Your task to perform on an android device: turn notification dots off Image 0: 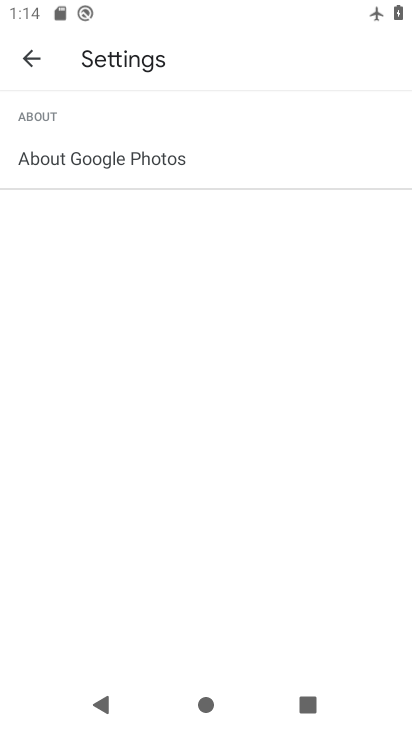
Step 0: press home button
Your task to perform on an android device: turn notification dots off Image 1: 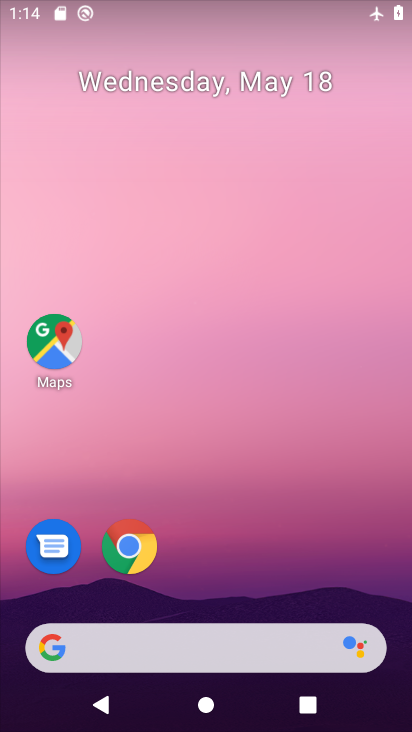
Step 1: drag from (185, 560) to (175, 143)
Your task to perform on an android device: turn notification dots off Image 2: 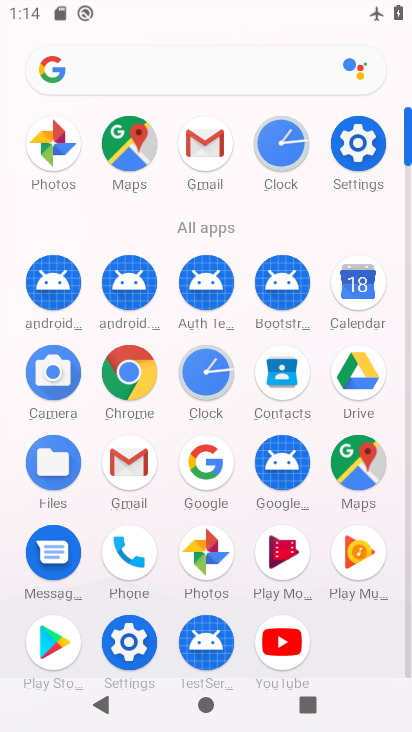
Step 2: click (361, 144)
Your task to perform on an android device: turn notification dots off Image 3: 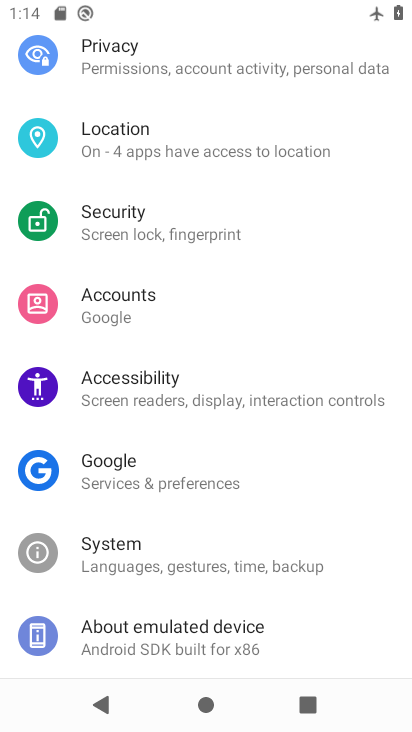
Step 3: drag from (232, 138) to (207, 369)
Your task to perform on an android device: turn notification dots off Image 4: 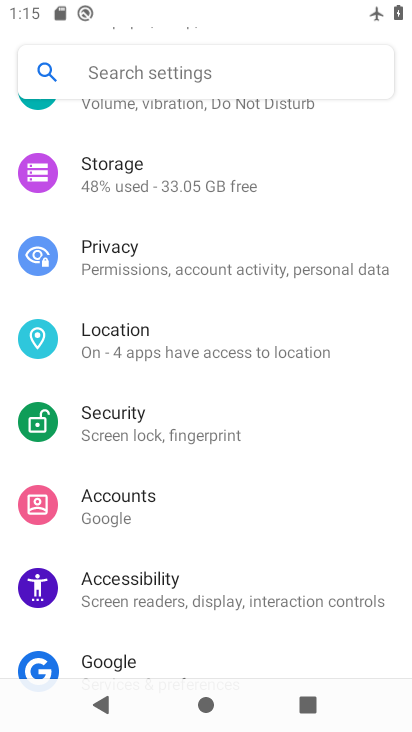
Step 4: drag from (238, 187) to (195, 391)
Your task to perform on an android device: turn notification dots off Image 5: 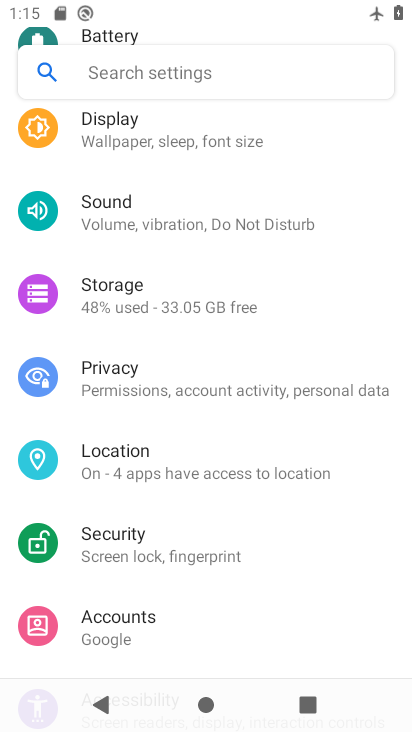
Step 5: drag from (235, 162) to (198, 435)
Your task to perform on an android device: turn notification dots off Image 6: 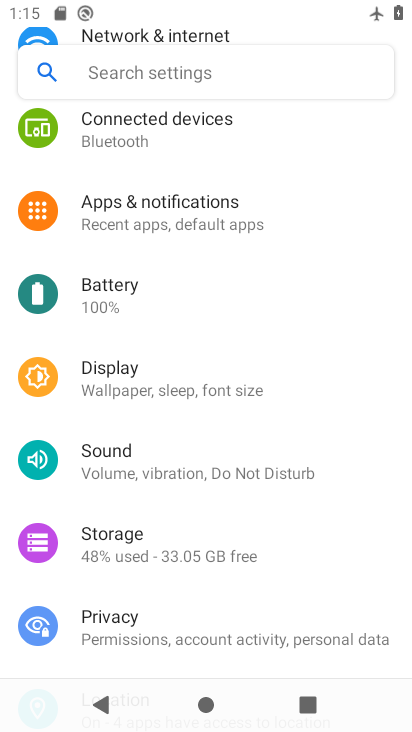
Step 6: drag from (252, 171) to (221, 377)
Your task to perform on an android device: turn notification dots off Image 7: 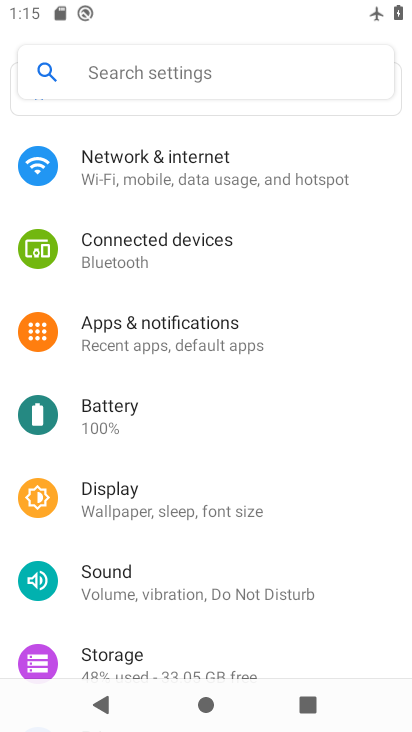
Step 7: click (209, 325)
Your task to perform on an android device: turn notification dots off Image 8: 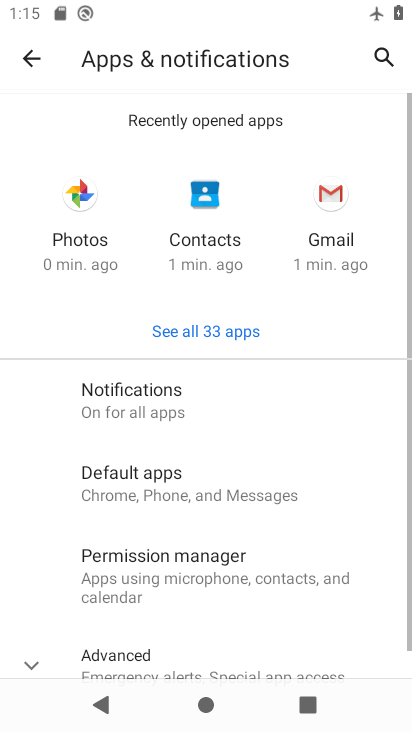
Step 8: drag from (159, 507) to (233, 201)
Your task to perform on an android device: turn notification dots off Image 9: 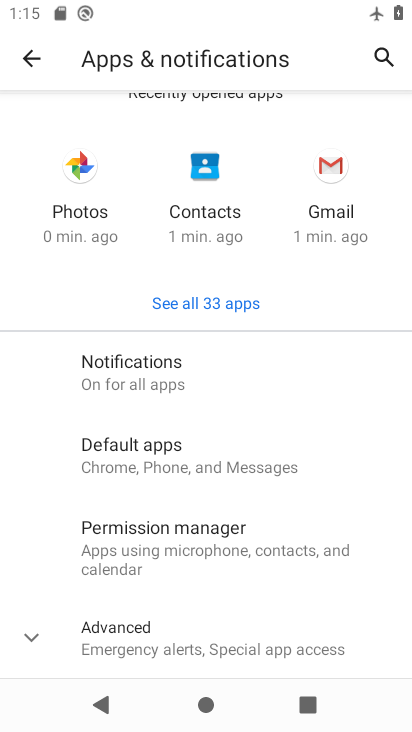
Step 9: click (189, 383)
Your task to perform on an android device: turn notification dots off Image 10: 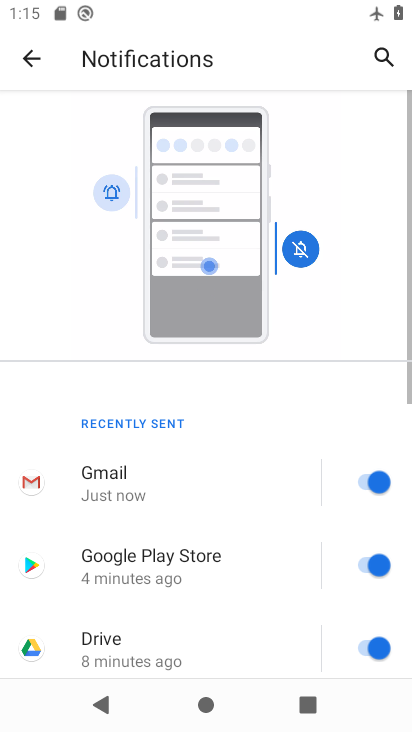
Step 10: drag from (212, 523) to (290, 145)
Your task to perform on an android device: turn notification dots off Image 11: 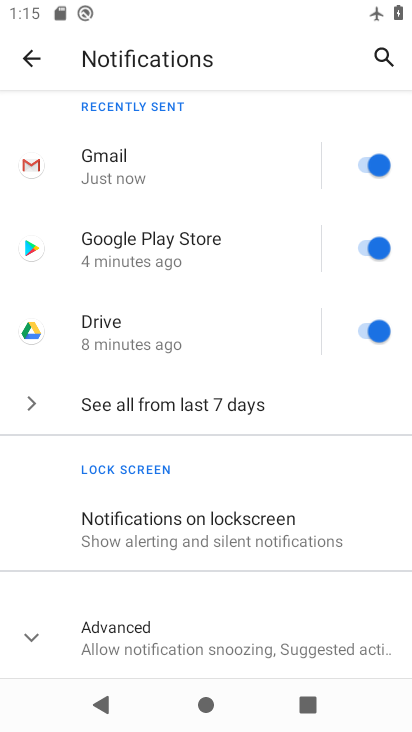
Step 11: drag from (224, 447) to (252, 278)
Your task to perform on an android device: turn notification dots off Image 12: 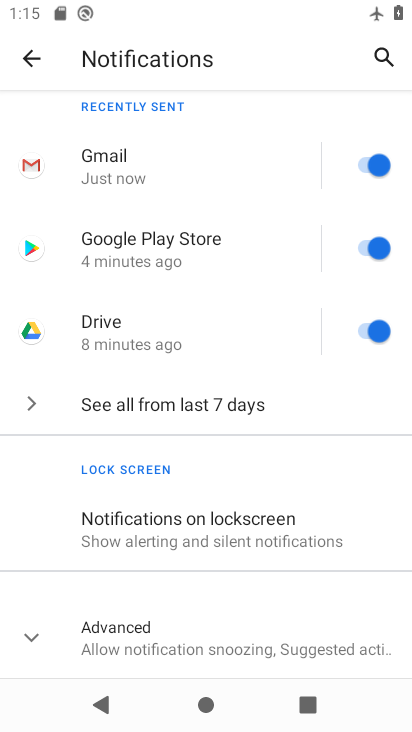
Step 12: click (30, 625)
Your task to perform on an android device: turn notification dots off Image 13: 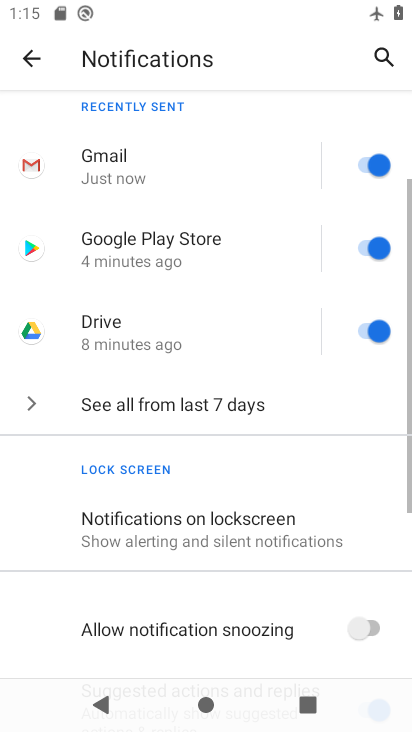
Step 13: drag from (175, 594) to (246, 237)
Your task to perform on an android device: turn notification dots off Image 14: 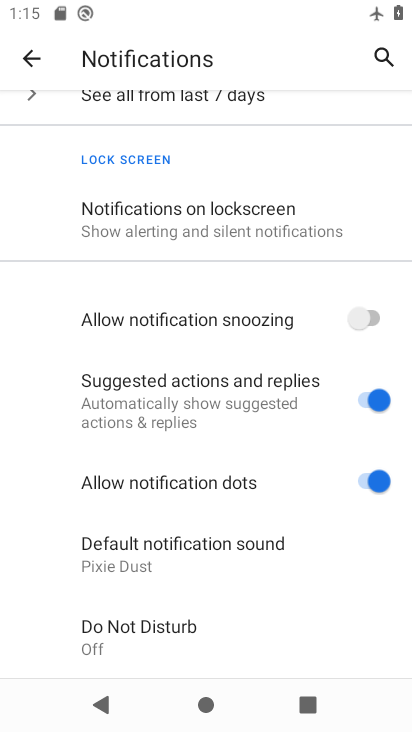
Step 14: click (364, 480)
Your task to perform on an android device: turn notification dots off Image 15: 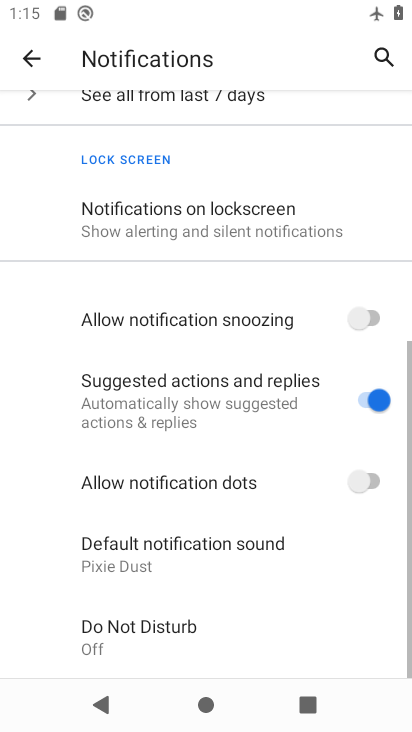
Step 15: task complete